Your task to perform on an android device: Go to Yahoo.com Image 0: 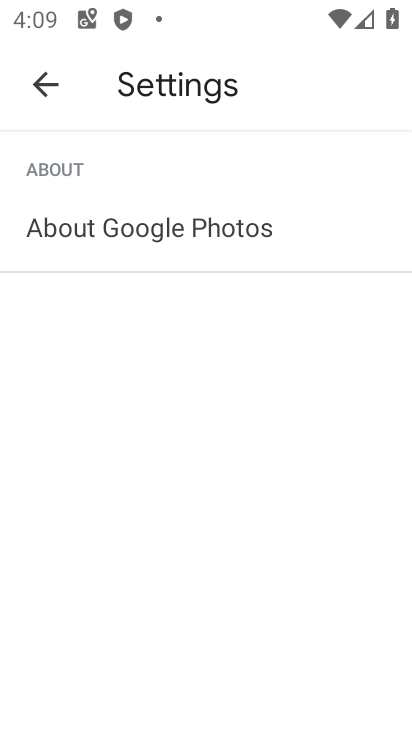
Step 0: press home button
Your task to perform on an android device: Go to Yahoo.com Image 1: 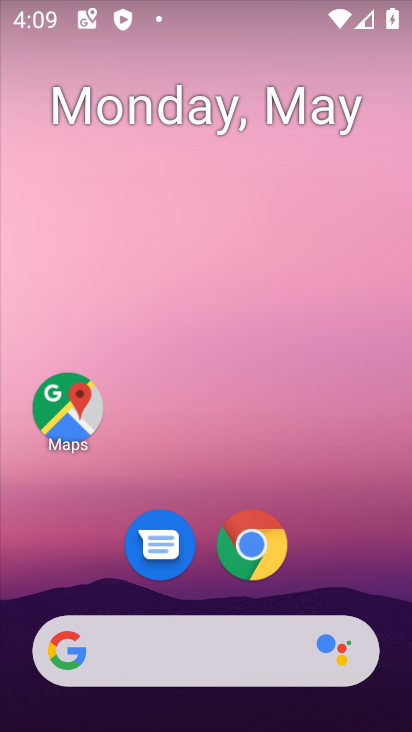
Step 1: click (244, 551)
Your task to perform on an android device: Go to Yahoo.com Image 2: 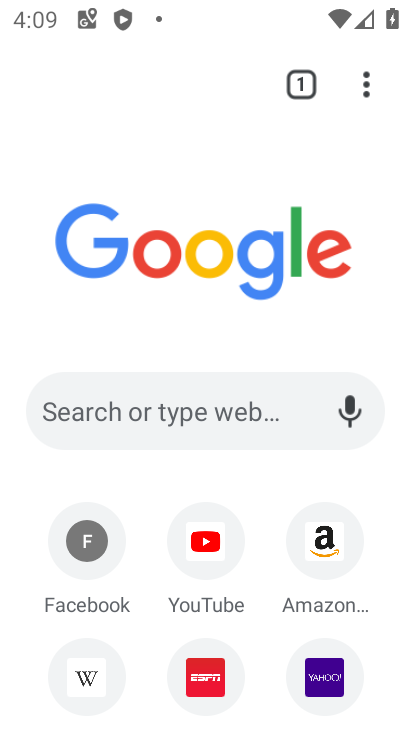
Step 2: click (320, 674)
Your task to perform on an android device: Go to Yahoo.com Image 3: 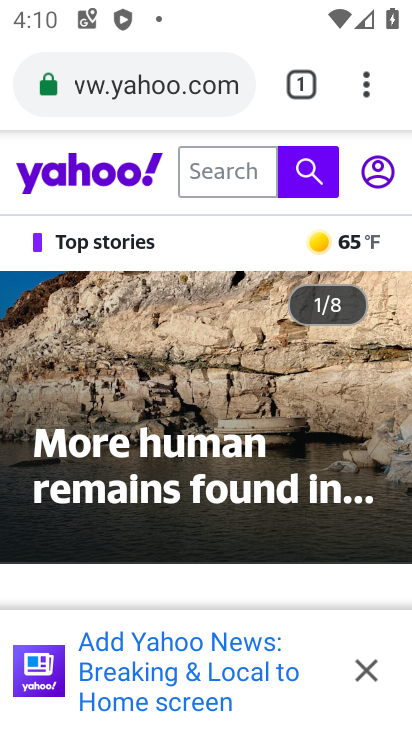
Step 3: task complete